Your task to perform on an android device: Open privacy settings Image 0: 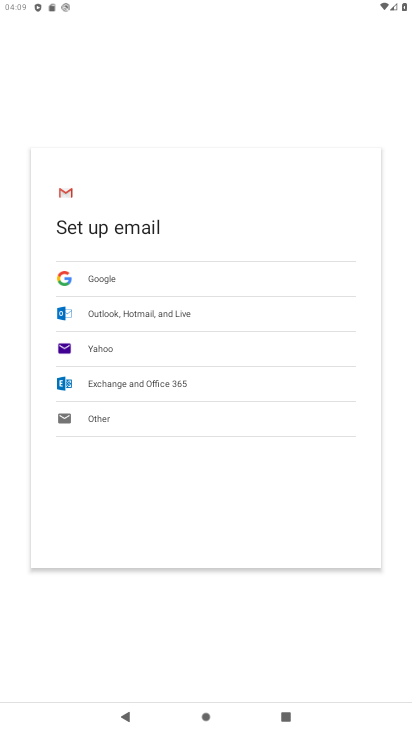
Step 0: press home button
Your task to perform on an android device: Open privacy settings Image 1: 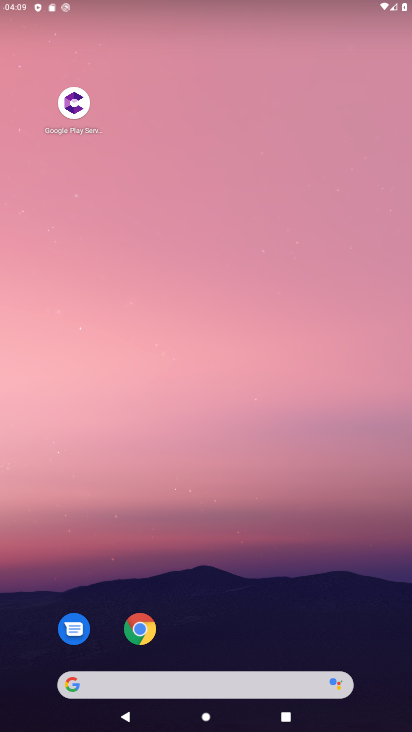
Step 1: drag from (304, 433) to (158, 61)
Your task to perform on an android device: Open privacy settings Image 2: 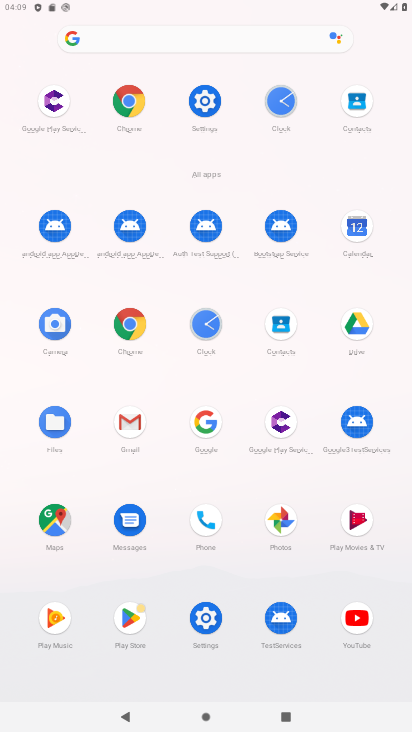
Step 2: click (197, 96)
Your task to perform on an android device: Open privacy settings Image 3: 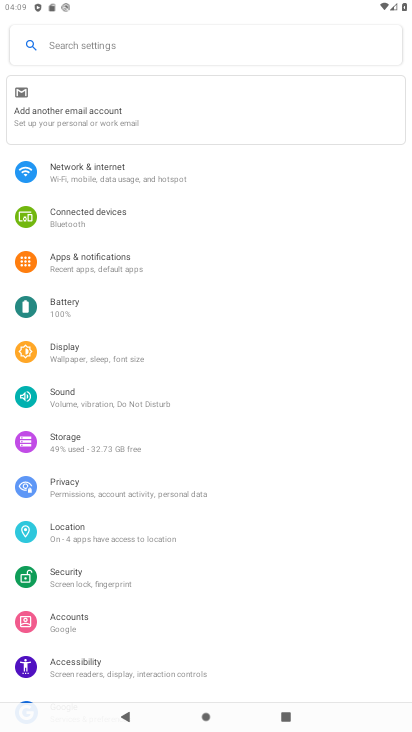
Step 3: click (82, 489)
Your task to perform on an android device: Open privacy settings Image 4: 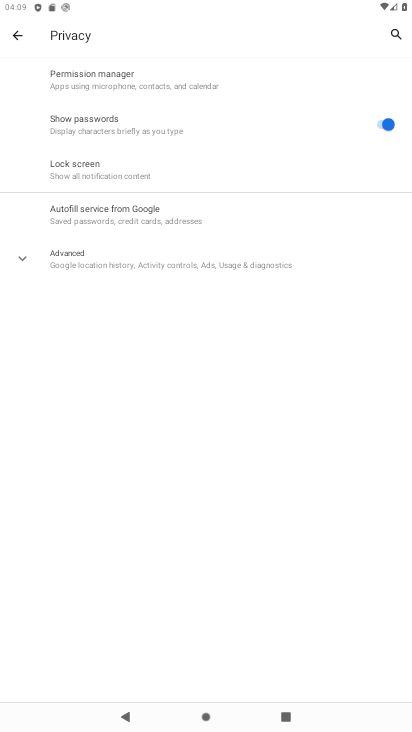
Step 4: task complete